Your task to perform on an android device: turn off improve location accuracy Image 0: 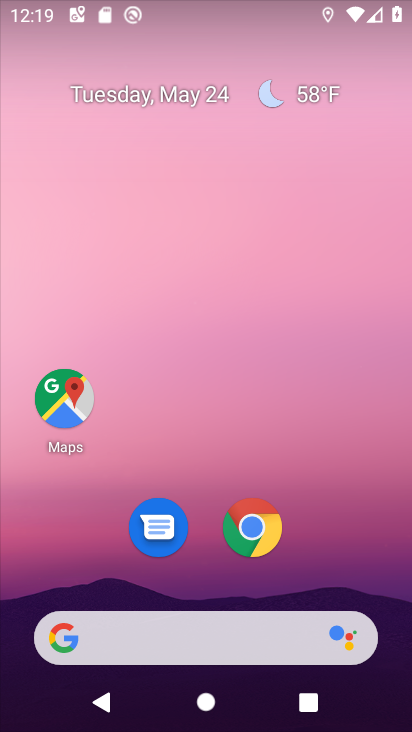
Step 0: drag from (400, 590) to (318, 118)
Your task to perform on an android device: turn off improve location accuracy Image 1: 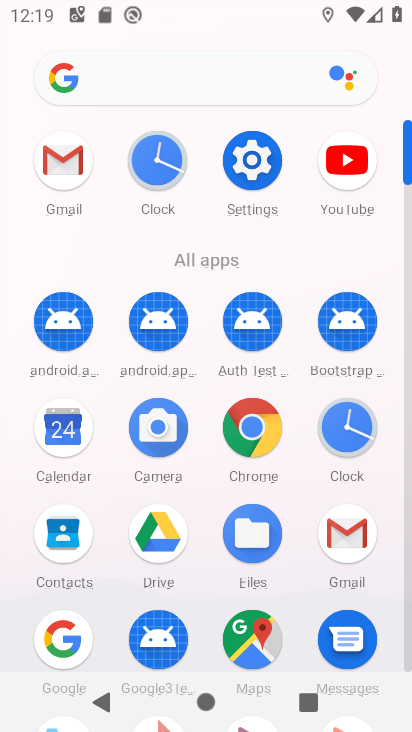
Step 1: click (251, 170)
Your task to perform on an android device: turn off improve location accuracy Image 2: 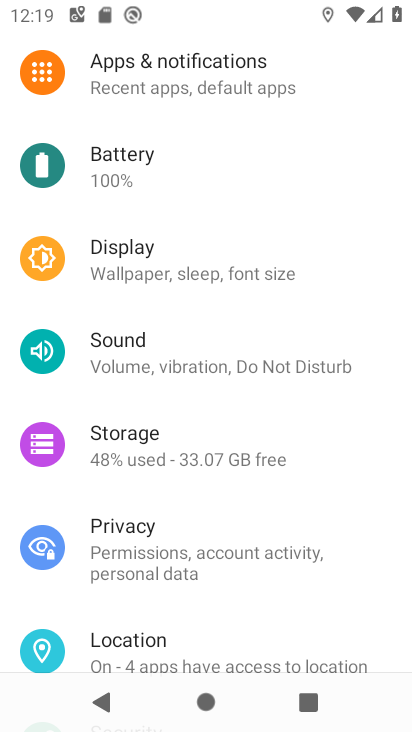
Step 2: click (260, 656)
Your task to perform on an android device: turn off improve location accuracy Image 3: 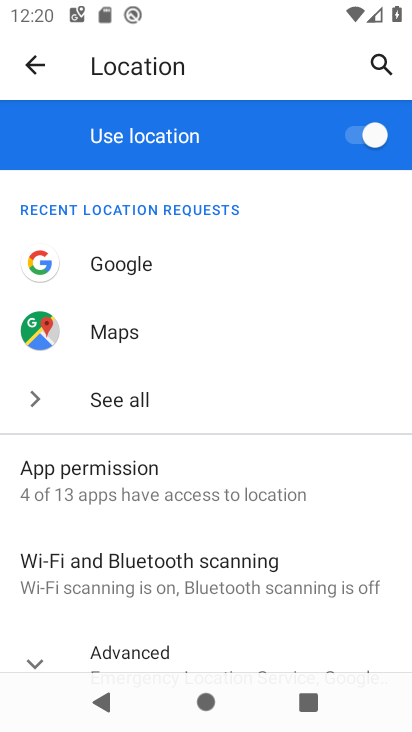
Step 3: drag from (268, 634) to (252, 347)
Your task to perform on an android device: turn off improve location accuracy Image 4: 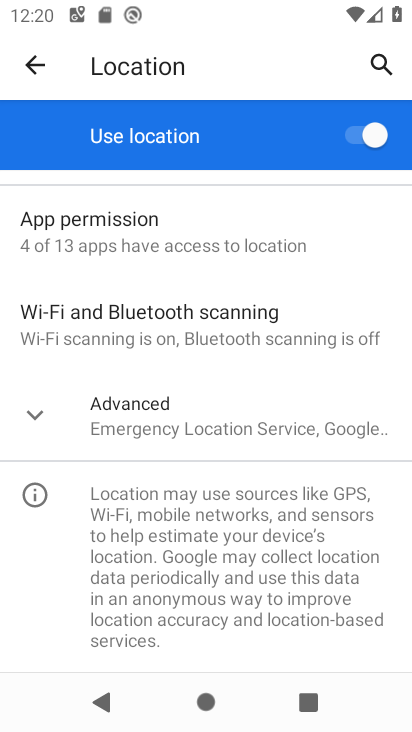
Step 4: click (263, 418)
Your task to perform on an android device: turn off improve location accuracy Image 5: 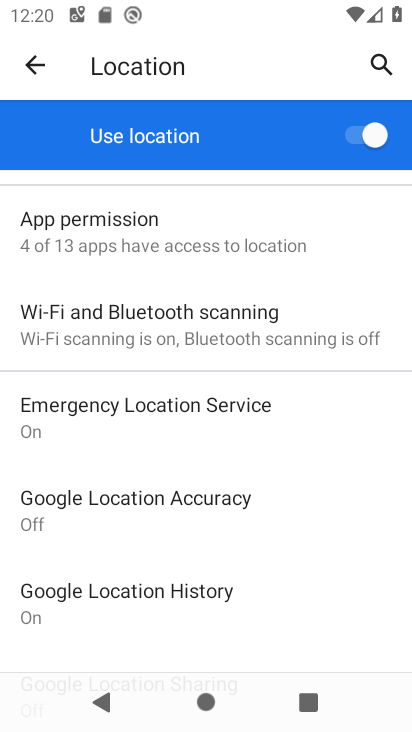
Step 5: click (255, 505)
Your task to perform on an android device: turn off improve location accuracy Image 6: 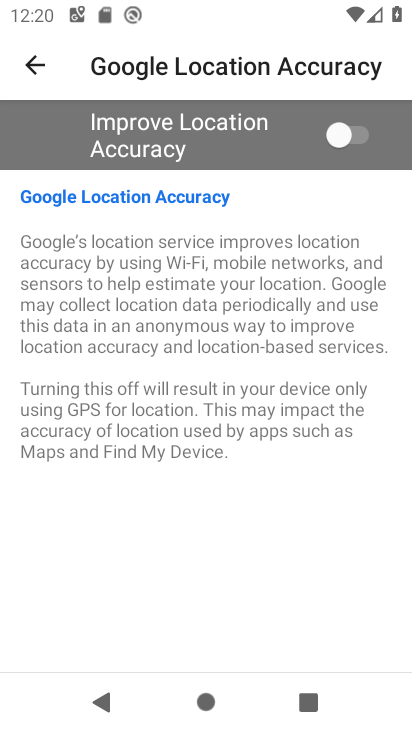
Step 6: task complete